Your task to perform on an android device: Open maps Image 0: 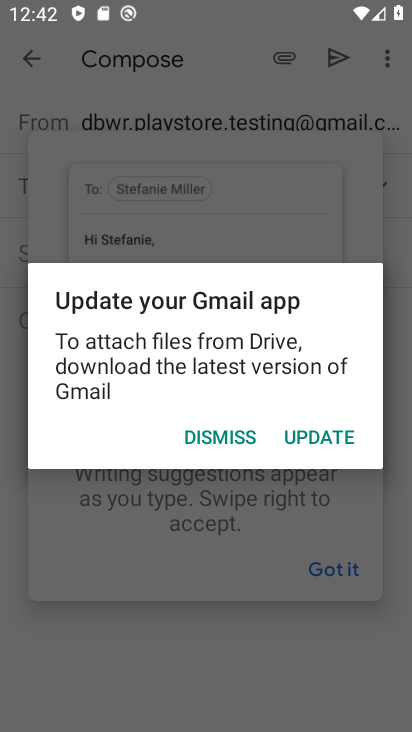
Step 0: press home button
Your task to perform on an android device: Open maps Image 1: 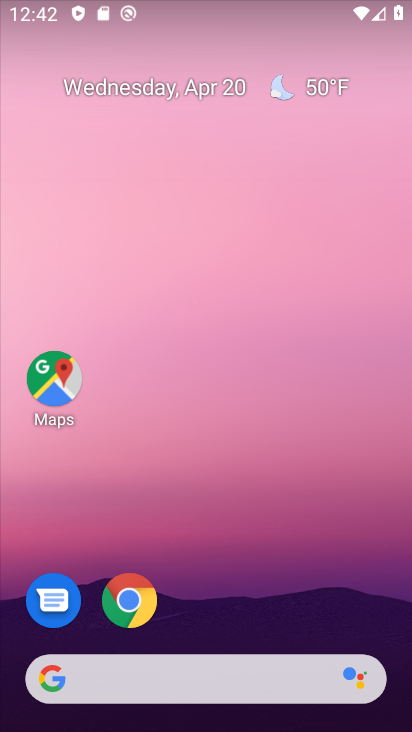
Step 1: click (41, 386)
Your task to perform on an android device: Open maps Image 2: 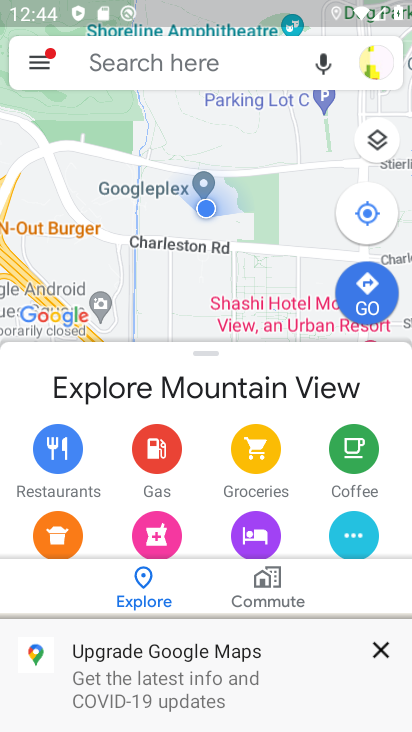
Step 2: task complete